Your task to perform on an android device: change timer sound Image 0: 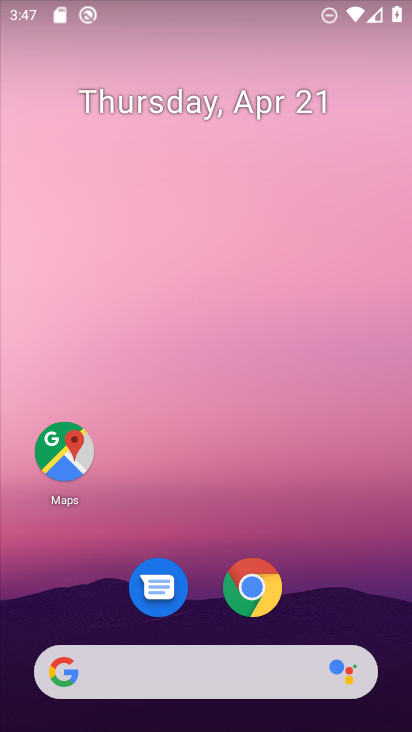
Step 0: drag from (381, 615) to (366, 36)
Your task to perform on an android device: change timer sound Image 1: 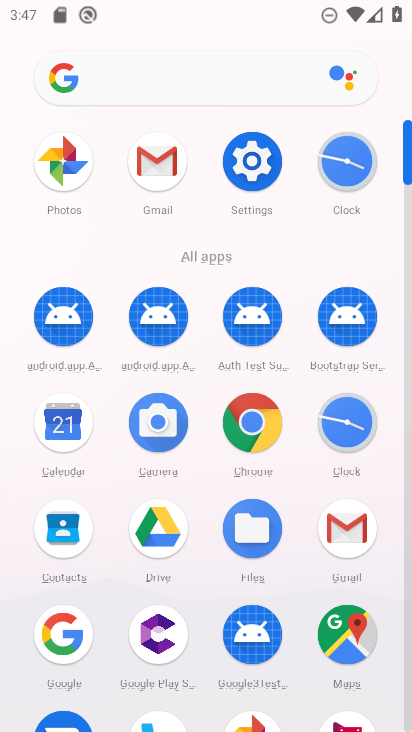
Step 1: click (349, 160)
Your task to perform on an android device: change timer sound Image 2: 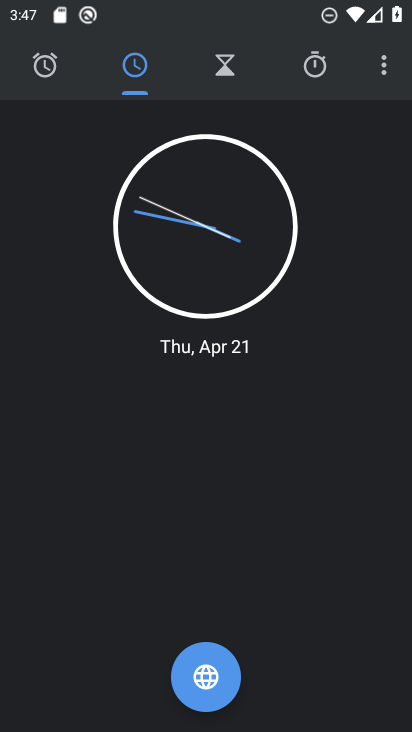
Step 2: click (385, 72)
Your task to perform on an android device: change timer sound Image 3: 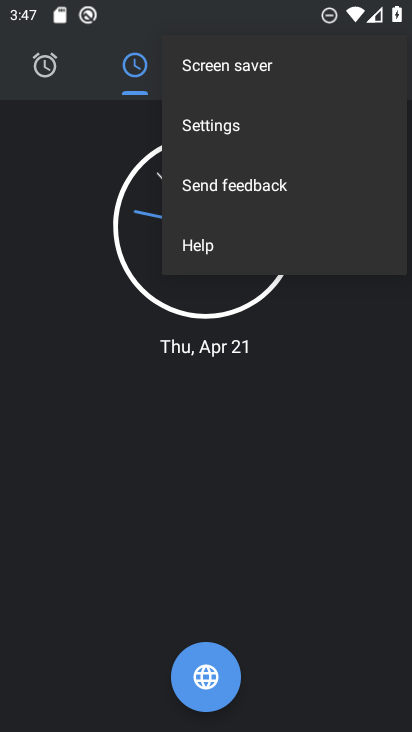
Step 3: click (216, 136)
Your task to perform on an android device: change timer sound Image 4: 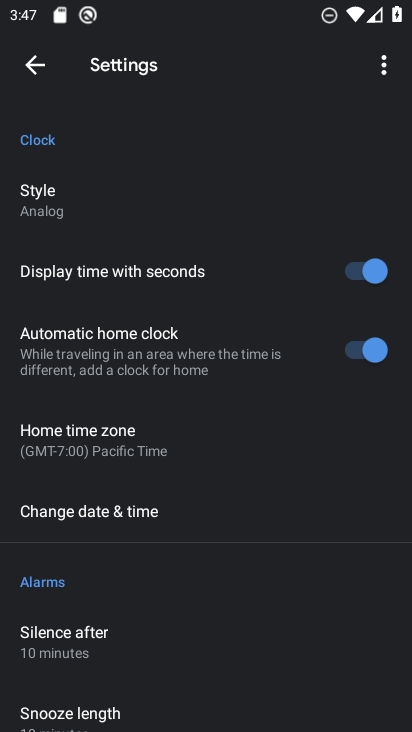
Step 4: drag from (170, 583) to (157, 169)
Your task to perform on an android device: change timer sound Image 5: 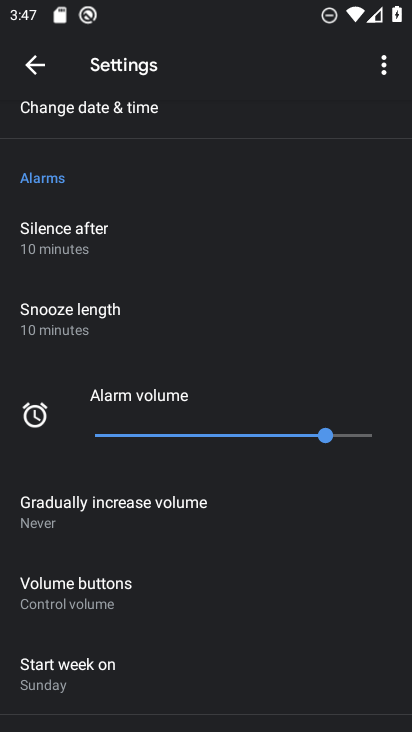
Step 5: drag from (179, 553) to (179, 211)
Your task to perform on an android device: change timer sound Image 6: 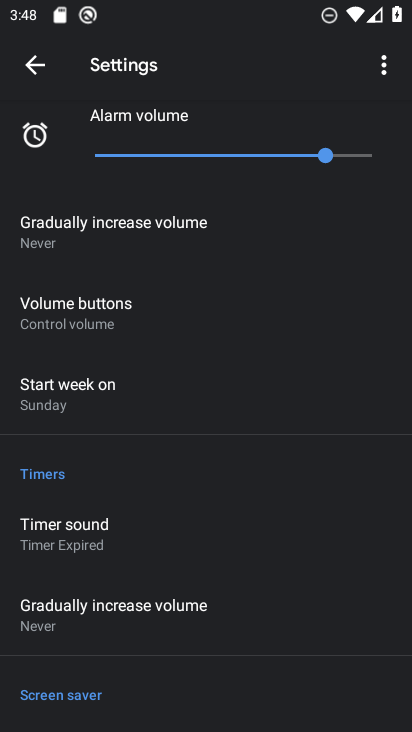
Step 6: click (70, 534)
Your task to perform on an android device: change timer sound Image 7: 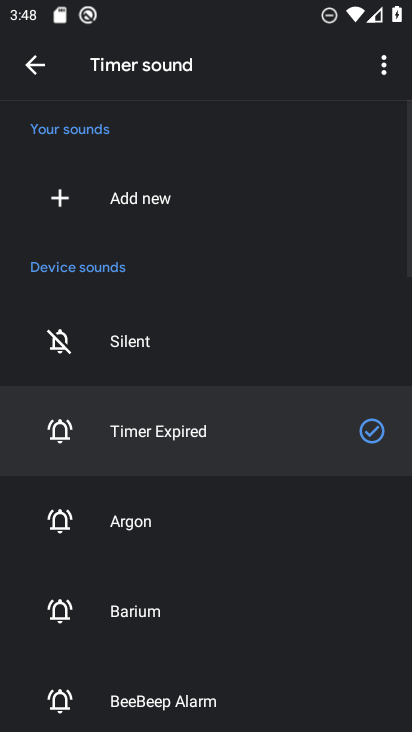
Step 7: click (129, 528)
Your task to perform on an android device: change timer sound Image 8: 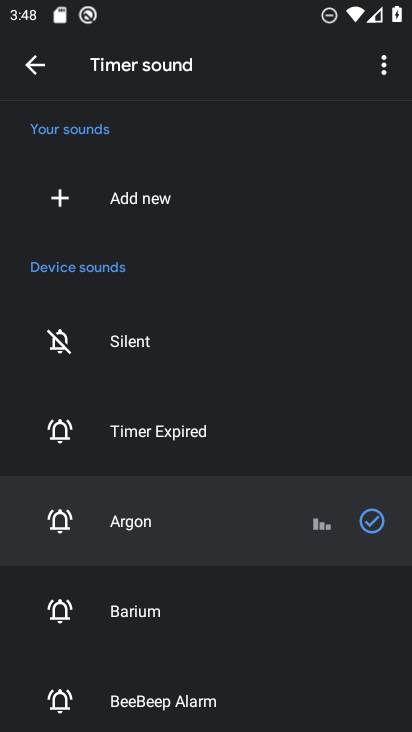
Step 8: task complete